Your task to perform on an android device: Go to eBay Image 0: 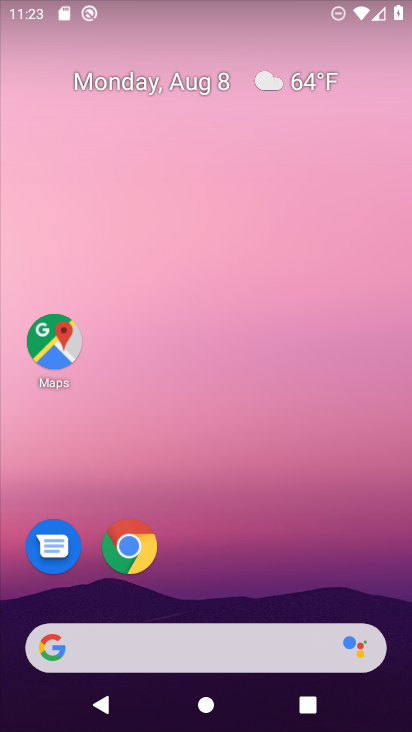
Step 0: press home button
Your task to perform on an android device: Go to eBay Image 1: 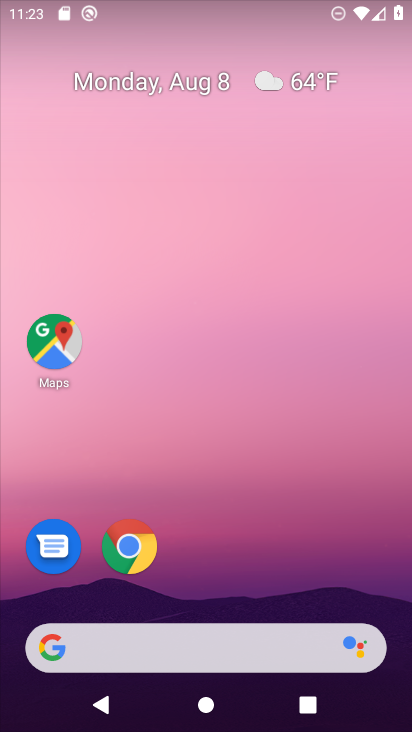
Step 1: click (124, 545)
Your task to perform on an android device: Go to eBay Image 2: 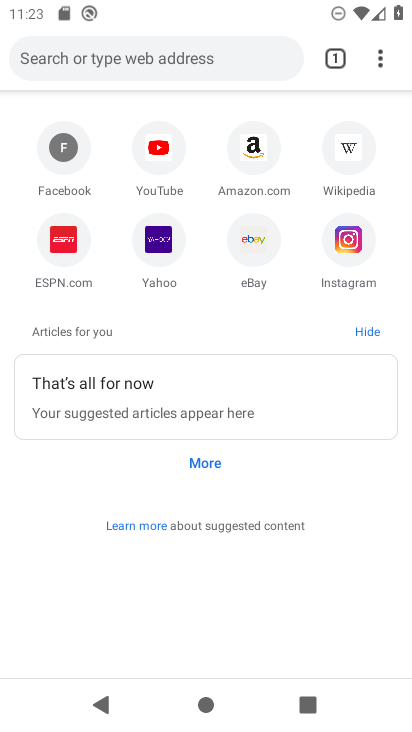
Step 2: click (248, 236)
Your task to perform on an android device: Go to eBay Image 3: 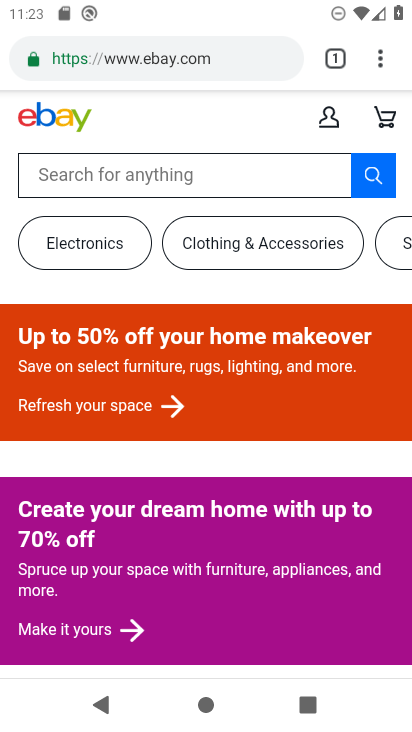
Step 3: task complete